Your task to perform on an android device: toggle improve location accuracy Image 0: 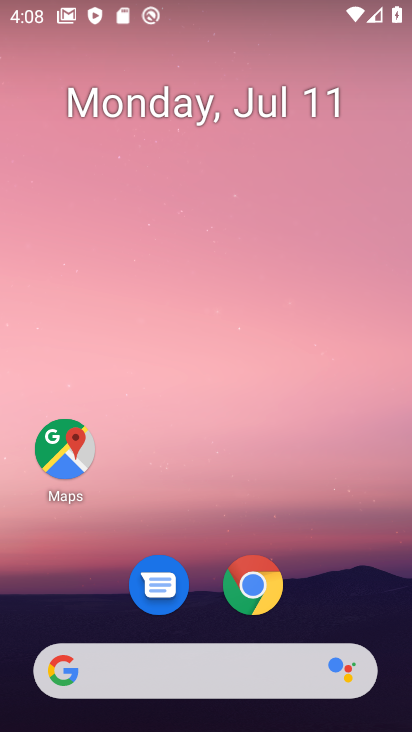
Step 0: drag from (324, 570) to (296, 71)
Your task to perform on an android device: toggle improve location accuracy Image 1: 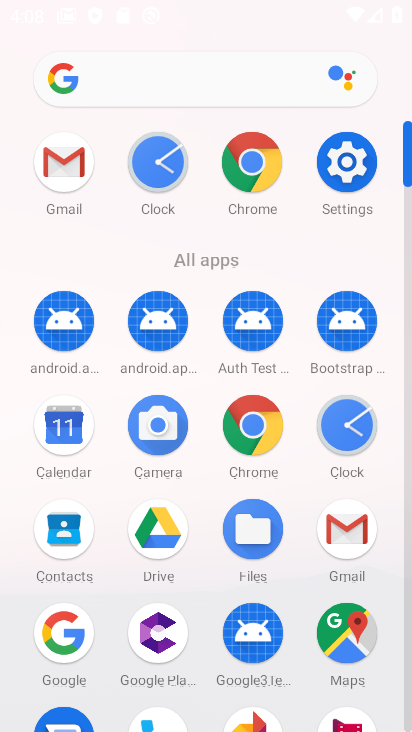
Step 1: click (343, 168)
Your task to perform on an android device: toggle improve location accuracy Image 2: 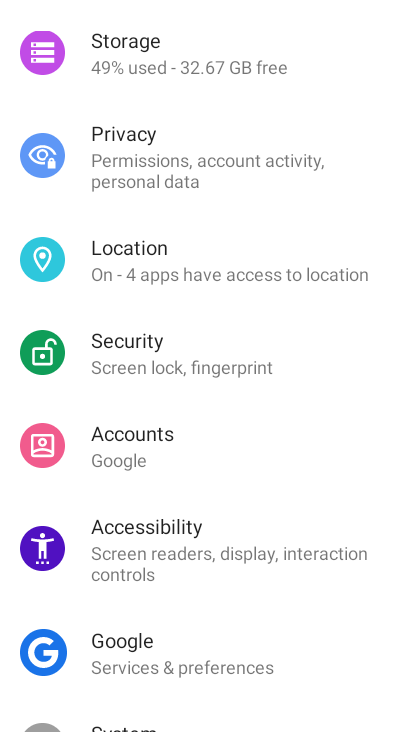
Step 2: click (231, 270)
Your task to perform on an android device: toggle improve location accuracy Image 3: 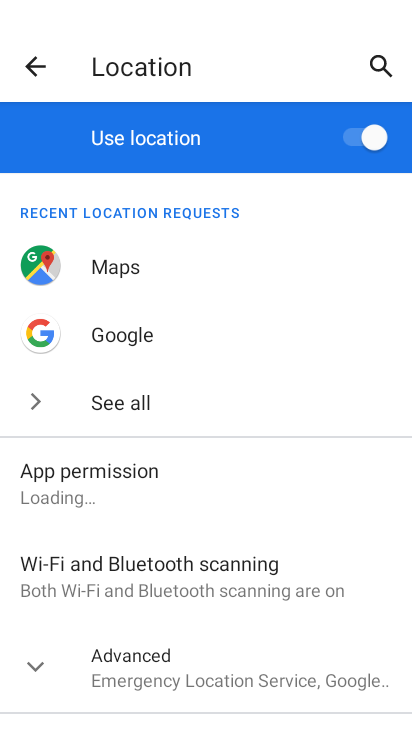
Step 3: click (29, 666)
Your task to perform on an android device: toggle improve location accuracy Image 4: 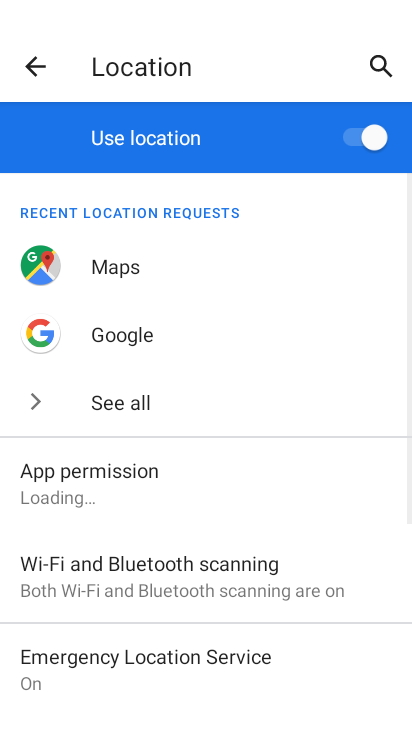
Step 4: drag from (282, 566) to (302, 221)
Your task to perform on an android device: toggle improve location accuracy Image 5: 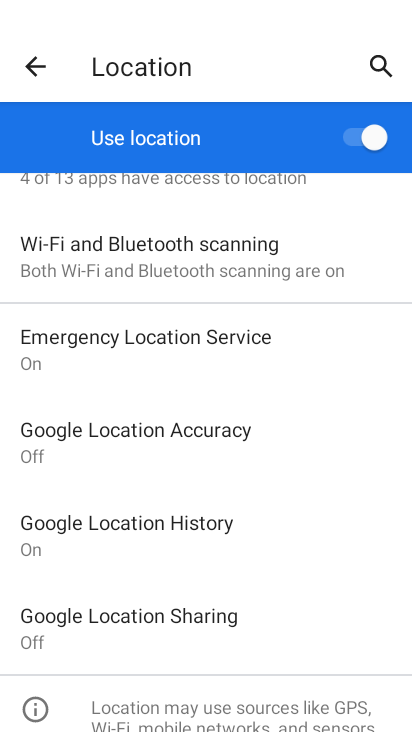
Step 5: click (247, 437)
Your task to perform on an android device: toggle improve location accuracy Image 6: 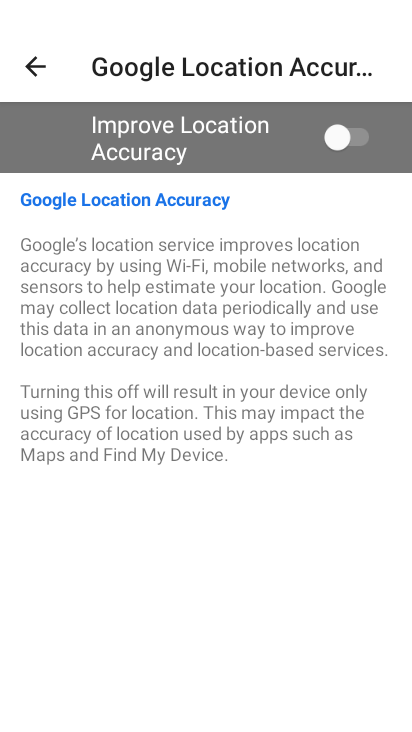
Step 6: click (345, 129)
Your task to perform on an android device: toggle improve location accuracy Image 7: 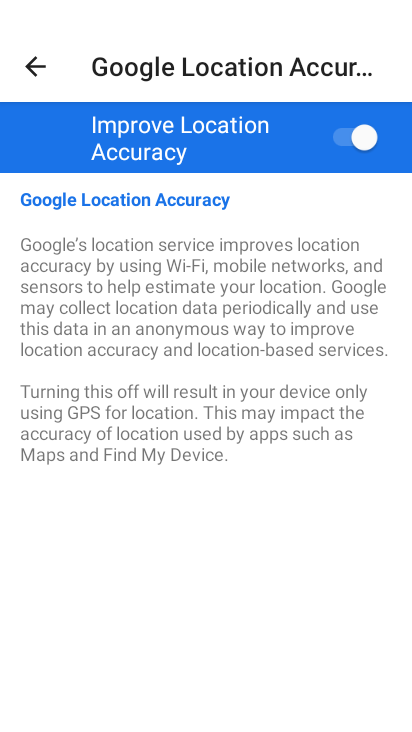
Step 7: task complete